Your task to perform on an android device: Add "logitech g pro" to the cart on walmart.com Image 0: 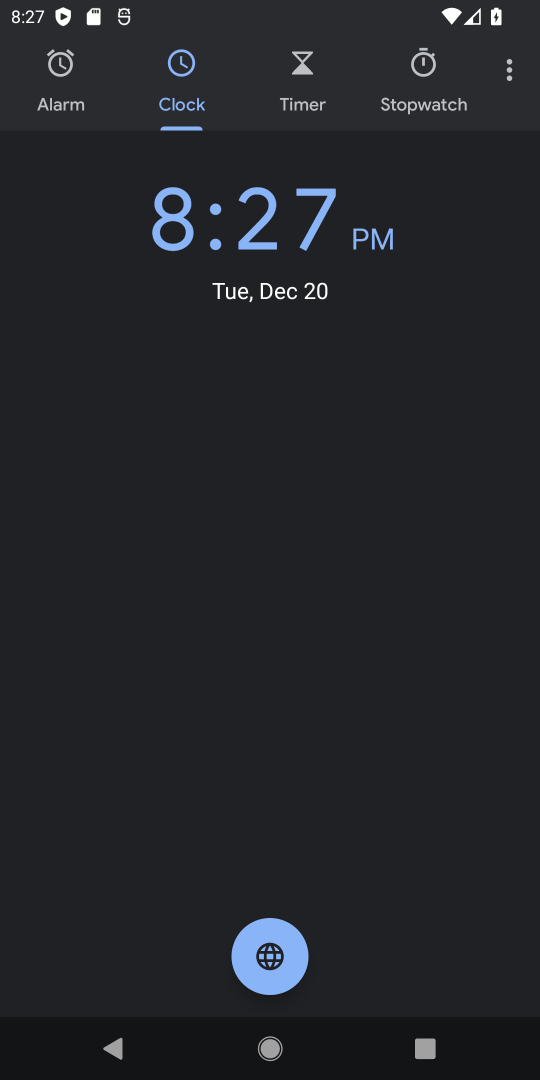
Step 0: press home button
Your task to perform on an android device: Add "logitech g pro" to the cart on walmart.com Image 1: 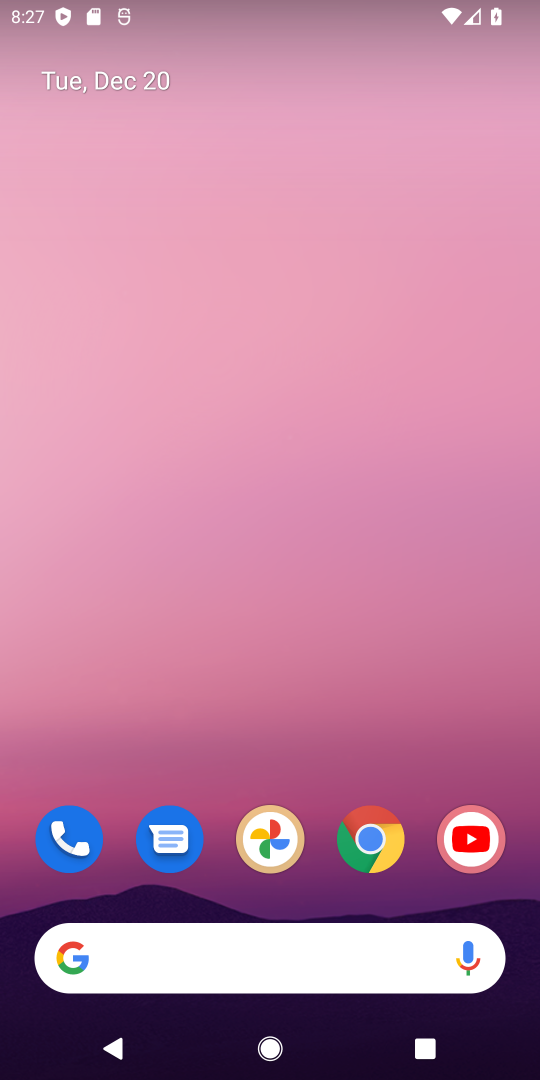
Step 1: drag from (251, 714) to (209, 138)
Your task to perform on an android device: Add "logitech g pro" to the cart on walmart.com Image 2: 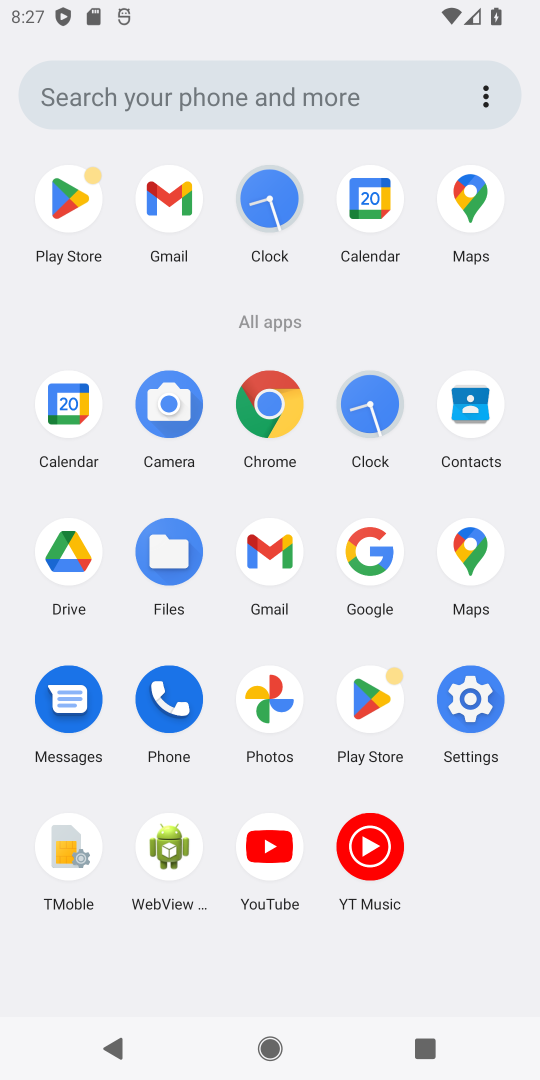
Step 2: click (367, 558)
Your task to perform on an android device: Add "logitech g pro" to the cart on walmart.com Image 3: 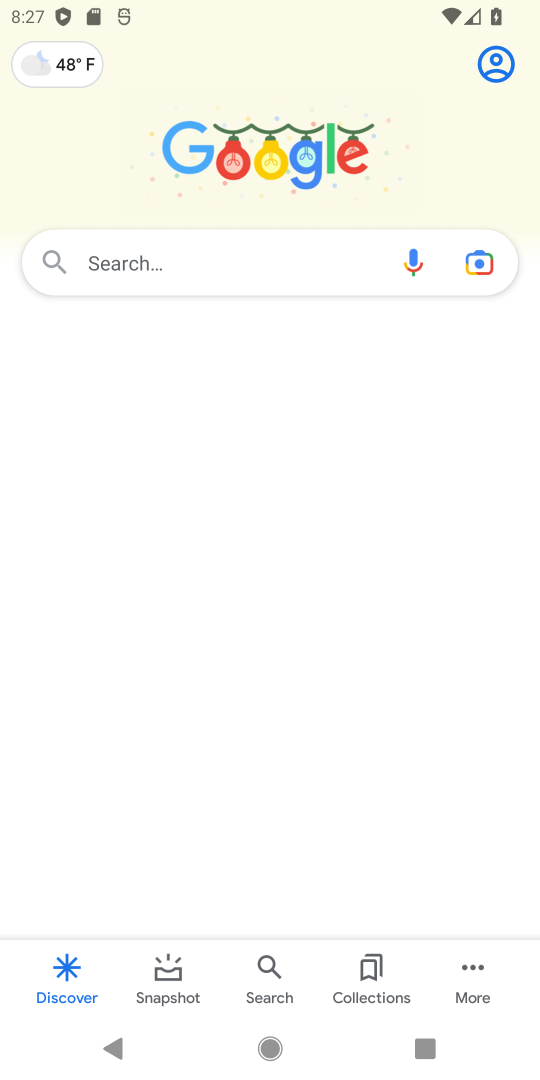
Step 3: click (228, 253)
Your task to perform on an android device: Add "logitech g pro" to the cart on walmart.com Image 4: 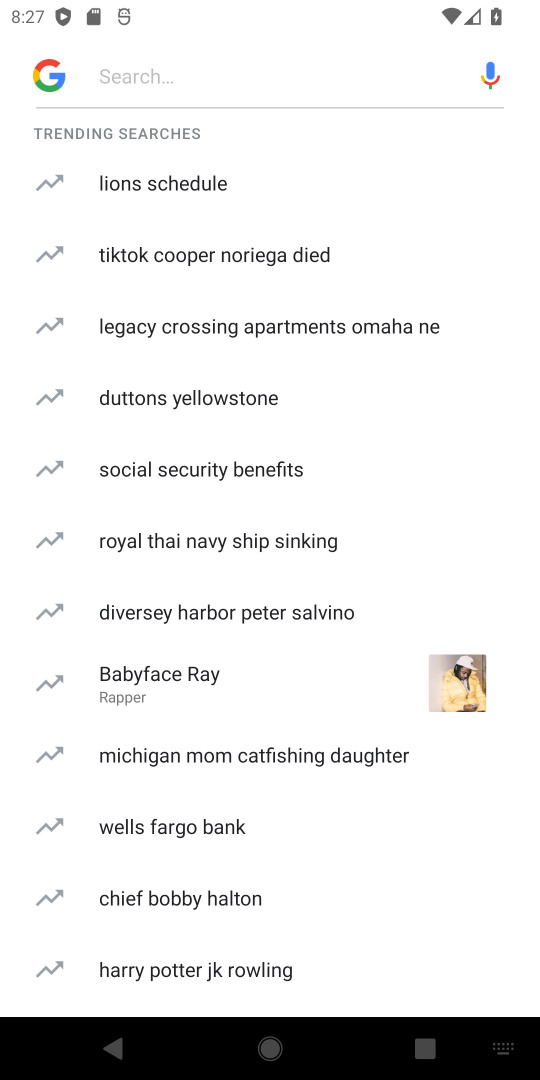
Step 4: type "walmart.com"
Your task to perform on an android device: Add "logitech g pro" to the cart on walmart.com Image 5: 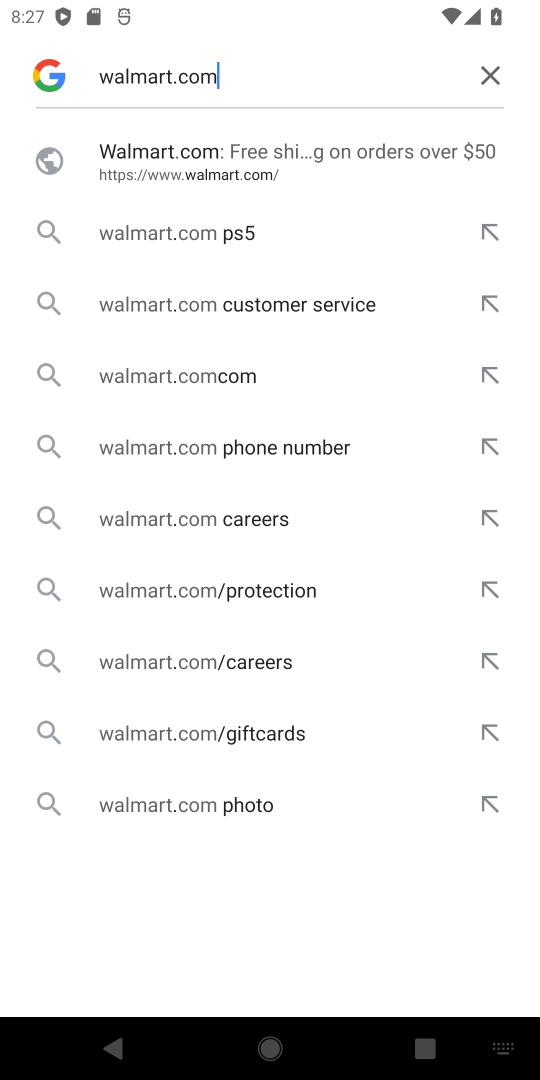
Step 5: click (198, 168)
Your task to perform on an android device: Add "logitech g pro" to the cart on walmart.com Image 6: 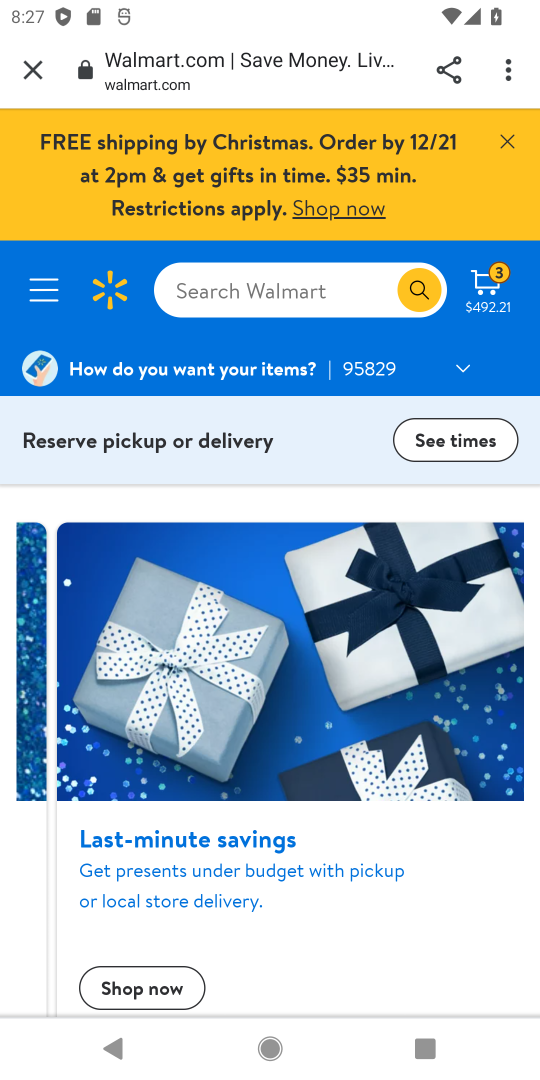
Step 6: click (254, 294)
Your task to perform on an android device: Add "logitech g pro" to the cart on walmart.com Image 7: 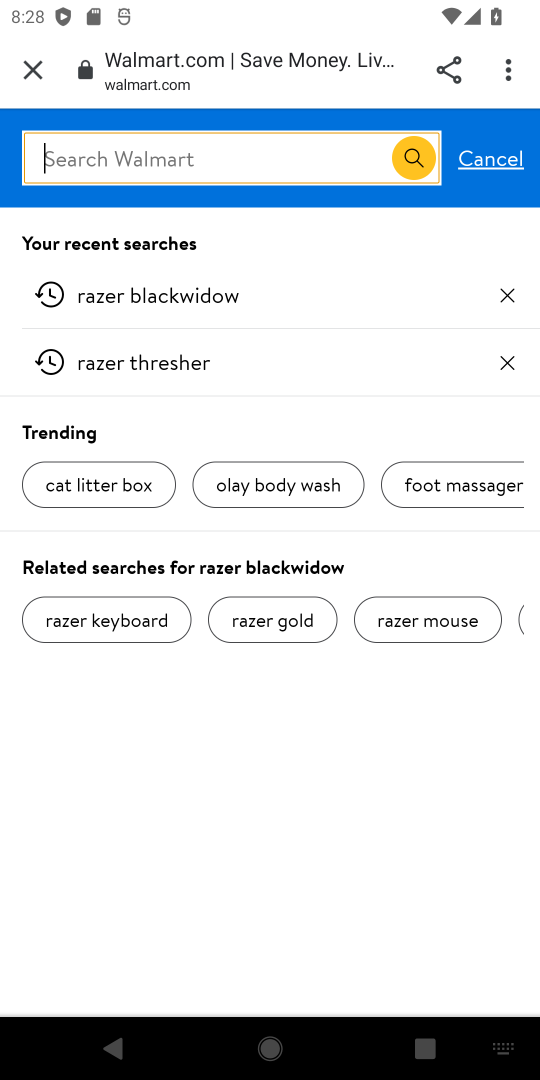
Step 7: type "logitech g pro"
Your task to perform on an android device: Add "logitech g pro" to the cart on walmart.com Image 8: 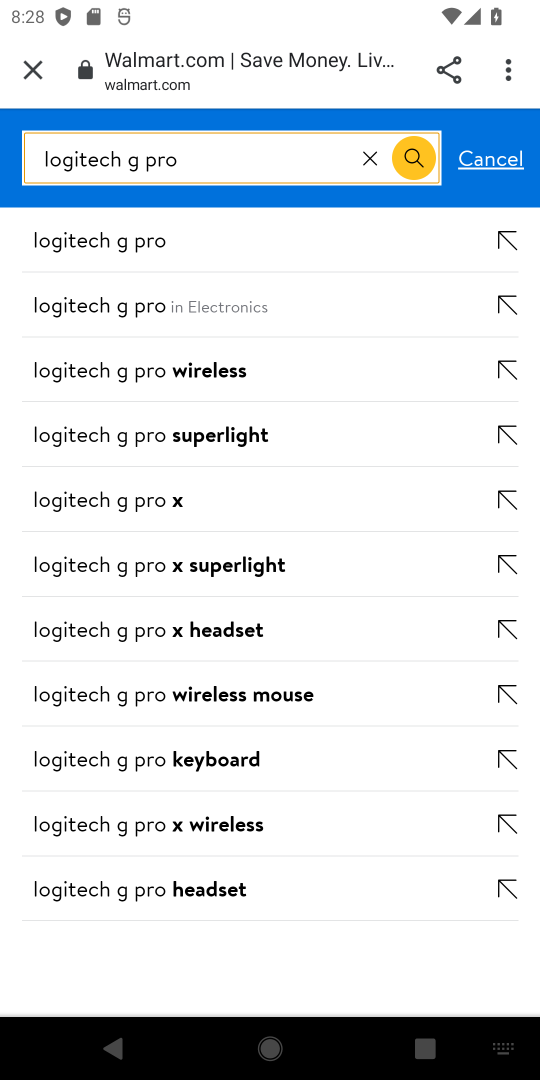
Step 8: click (106, 245)
Your task to perform on an android device: Add "logitech g pro" to the cart on walmart.com Image 9: 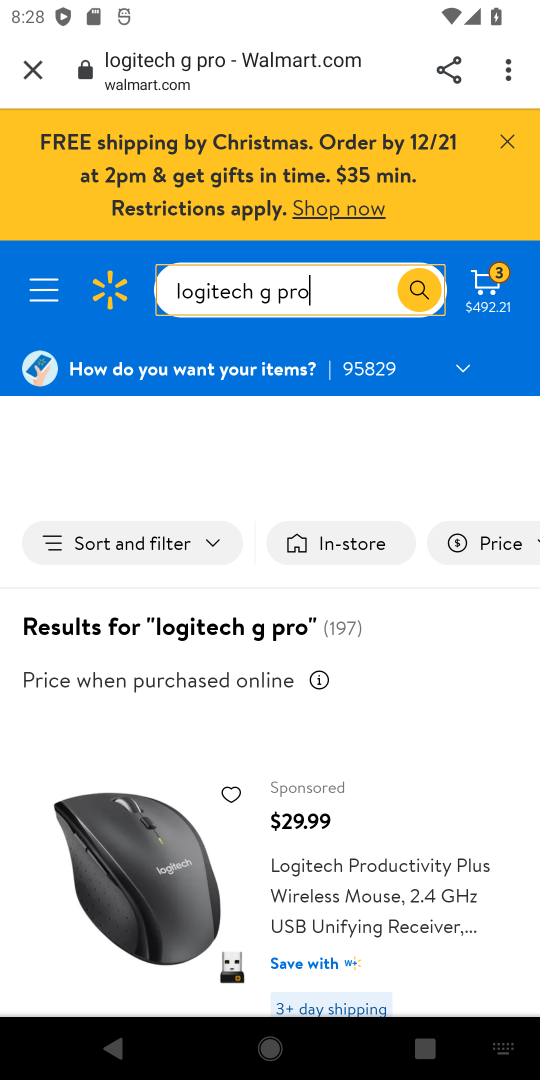
Step 9: click (315, 864)
Your task to perform on an android device: Add "logitech g pro" to the cart on walmart.com Image 10: 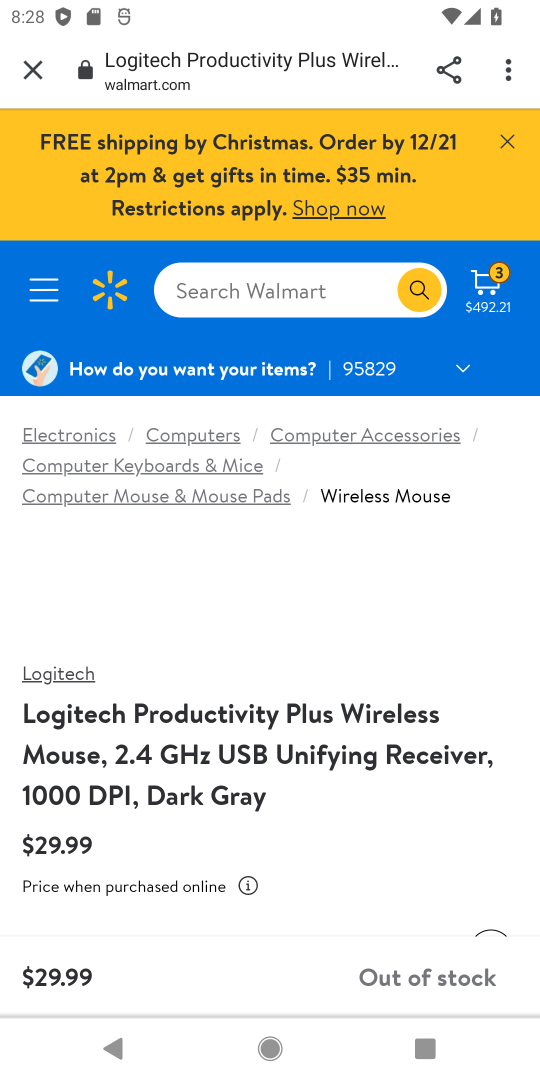
Step 10: task complete